Your task to perform on an android device: Open the phone app and click the voicemail tab. Image 0: 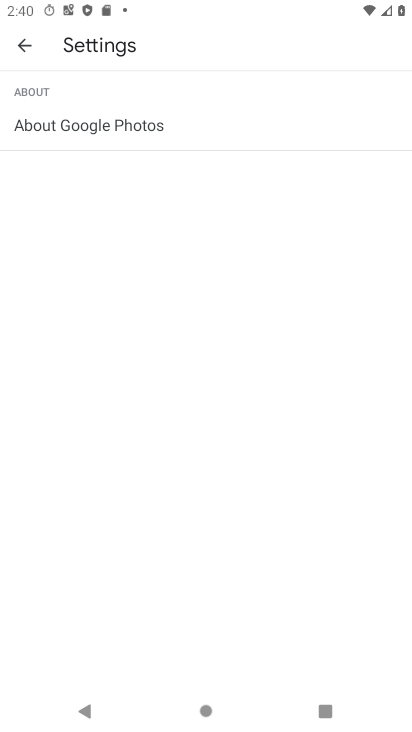
Step 0: press home button
Your task to perform on an android device: Open the phone app and click the voicemail tab. Image 1: 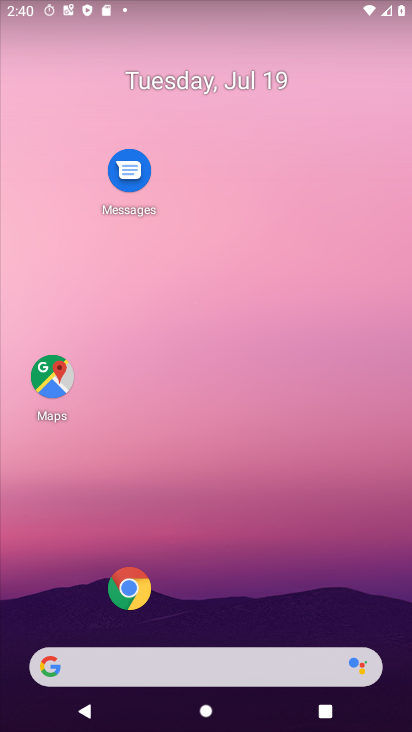
Step 1: drag from (87, 615) to (310, 112)
Your task to perform on an android device: Open the phone app and click the voicemail tab. Image 2: 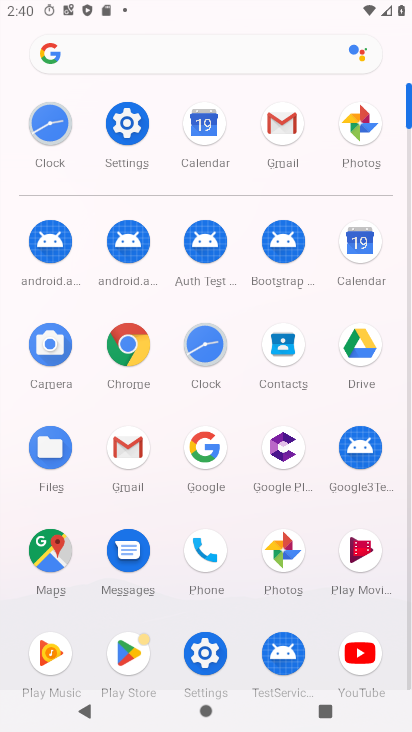
Step 2: click (196, 566)
Your task to perform on an android device: Open the phone app and click the voicemail tab. Image 3: 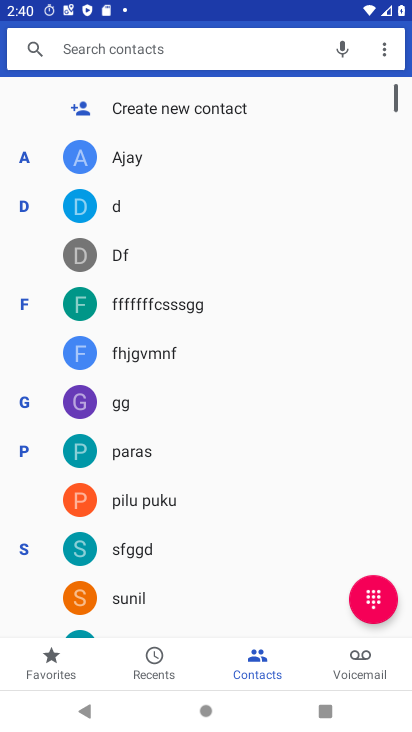
Step 3: click (350, 673)
Your task to perform on an android device: Open the phone app and click the voicemail tab. Image 4: 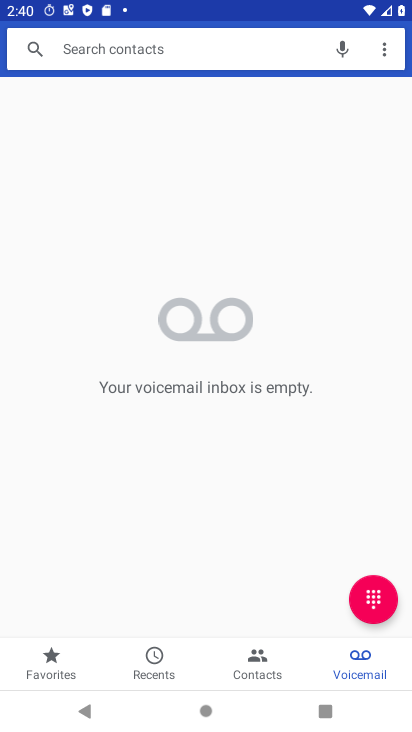
Step 4: task complete